Your task to perform on an android device: check google app version Image 0: 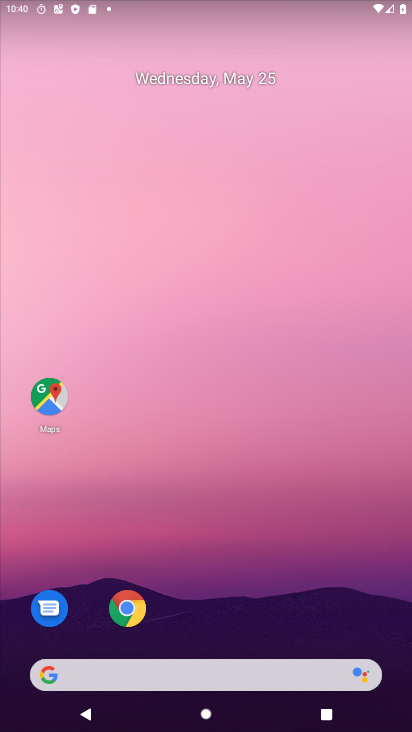
Step 0: drag from (239, 618) to (228, 245)
Your task to perform on an android device: check google app version Image 1: 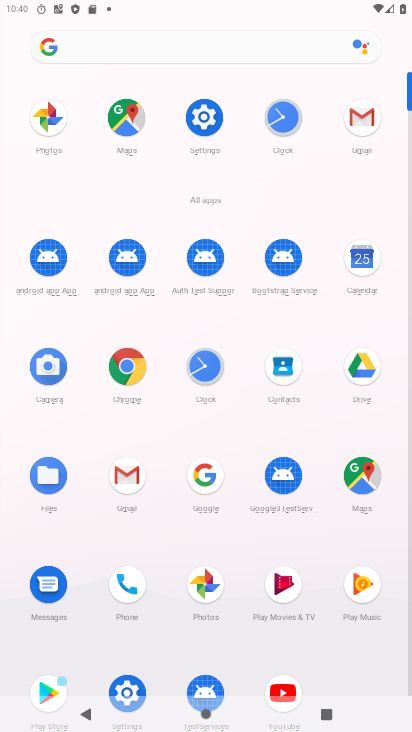
Step 1: click (135, 366)
Your task to perform on an android device: check google app version Image 2: 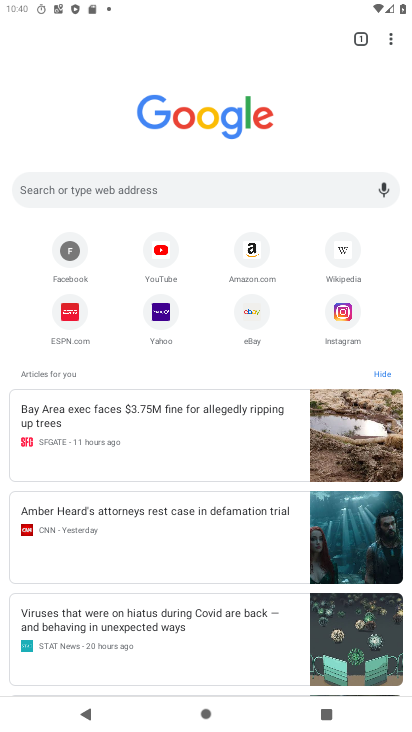
Step 2: click (383, 56)
Your task to perform on an android device: check google app version Image 3: 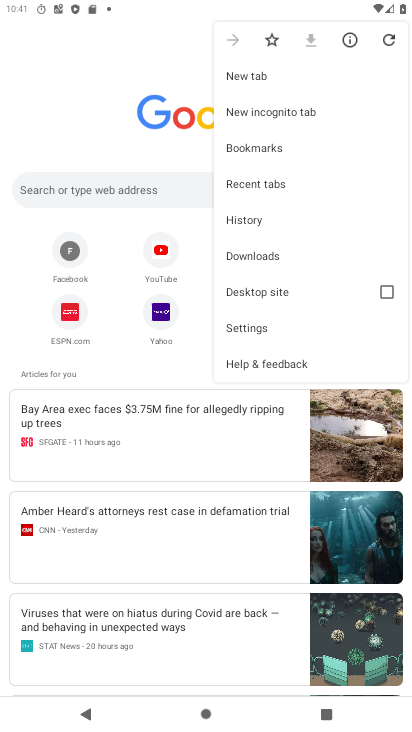
Step 3: click (272, 330)
Your task to perform on an android device: check google app version Image 4: 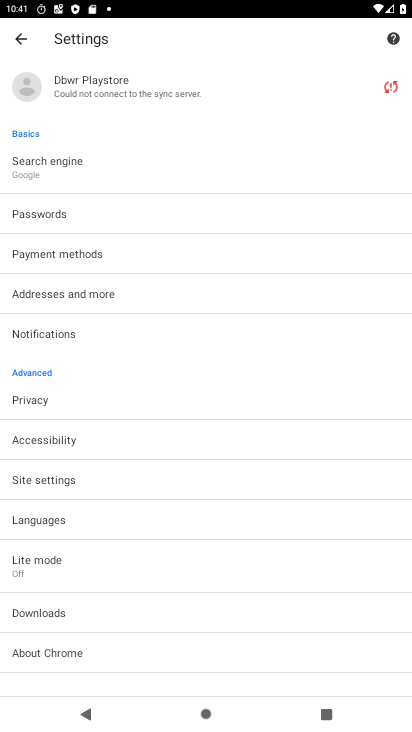
Step 4: drag from (125, 677) to (104, 378)
Your task to perform on an android device: check google app version Image 5: 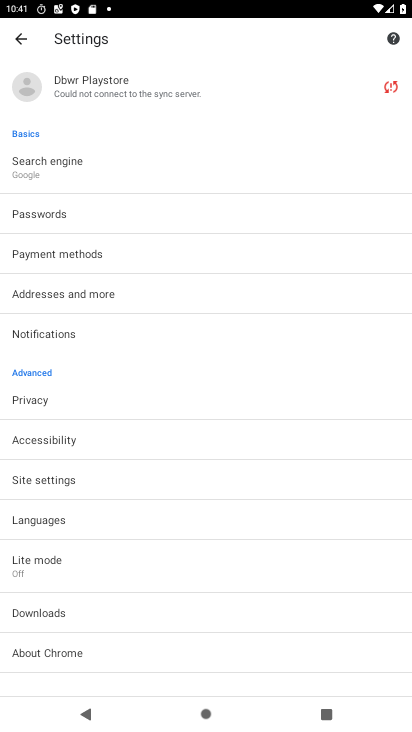
Step 5: click (24, 40)
Your task to perform on an android device: check google app version Image 6: 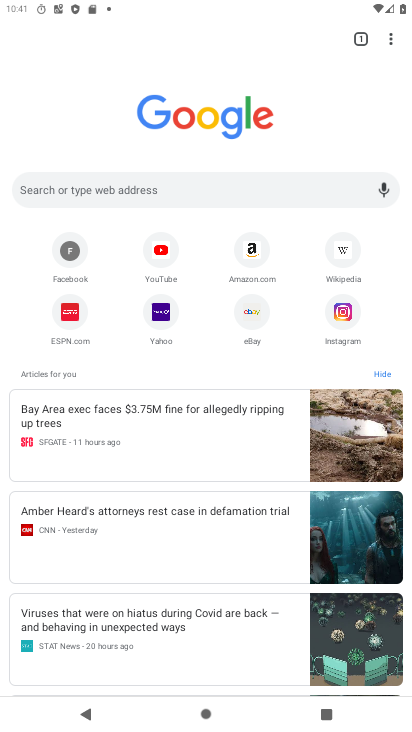
Step 6: click (393, 45)
Your task to perform on an android device: check google app version Image 7: 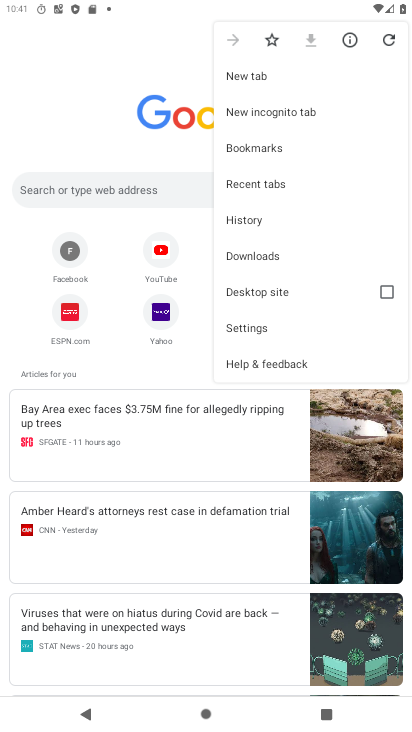
Step 7: click (299, 364)
Your task to perform on an android device: check google app version Image 8: 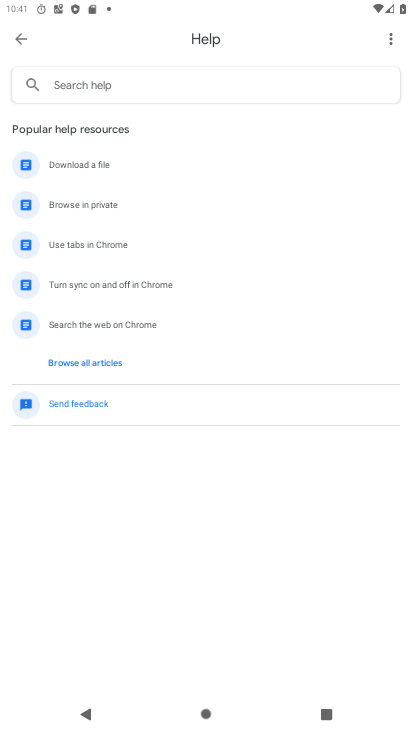
Step 8: click (389, 47)
Your task to perform on an android device: check google app version Image 9: 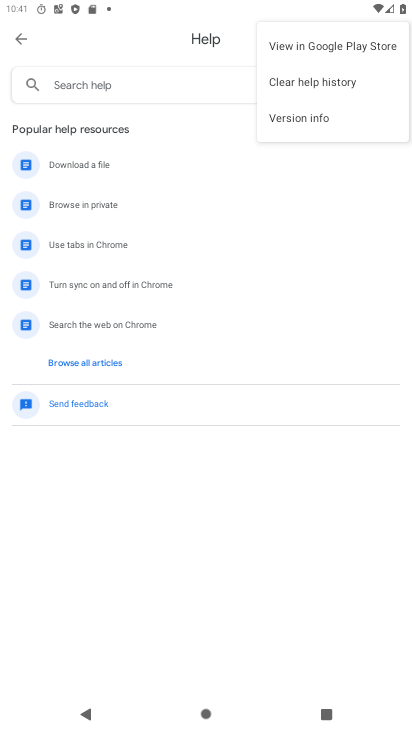
Step 9: click (338, 119)
Your task to perform on an android device: check google app version Image 10: 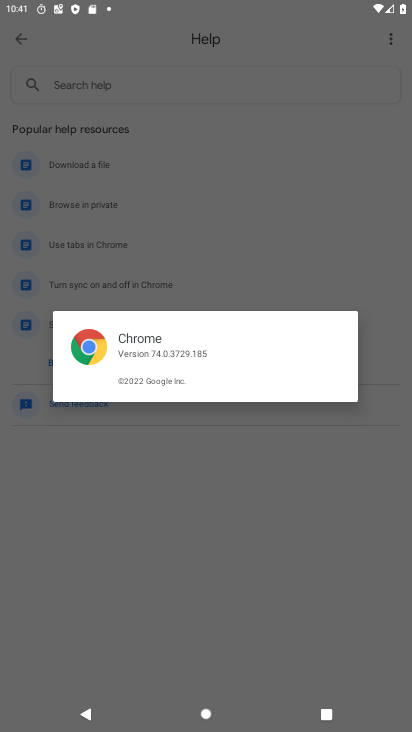
Step 10: task complete